Your task to perform on an android device: choose inbox layout in the gmail app Image 0: 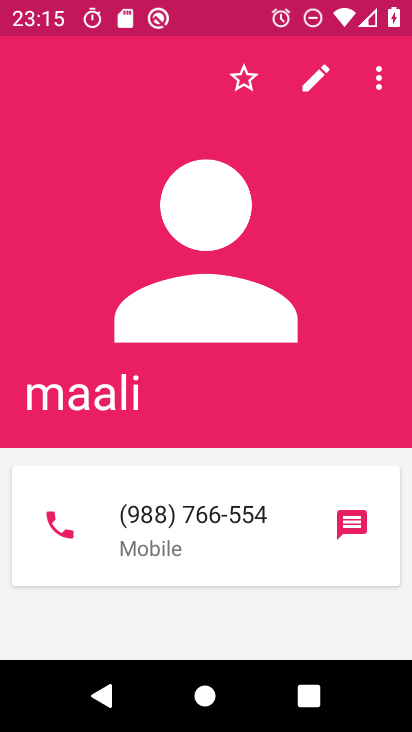
Step 0: press home button
Your task to perform on an android device: choose inbox layout in the gmail app Image 1: 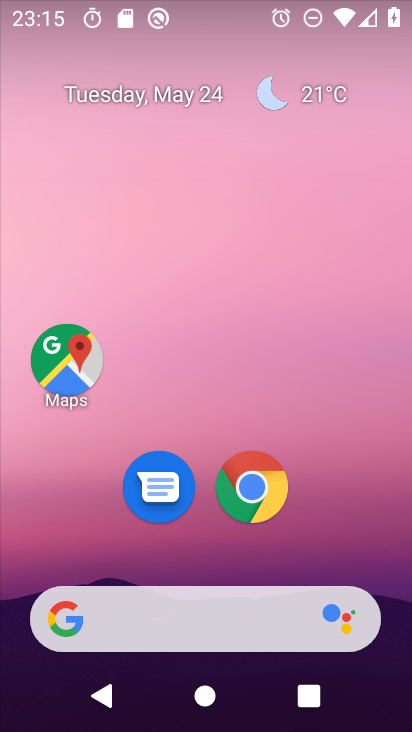
Step 1: drag from (351, 549) to (331, 12)
Your task to perform on an android device: choose inbox layout in the gmail app Image 2: 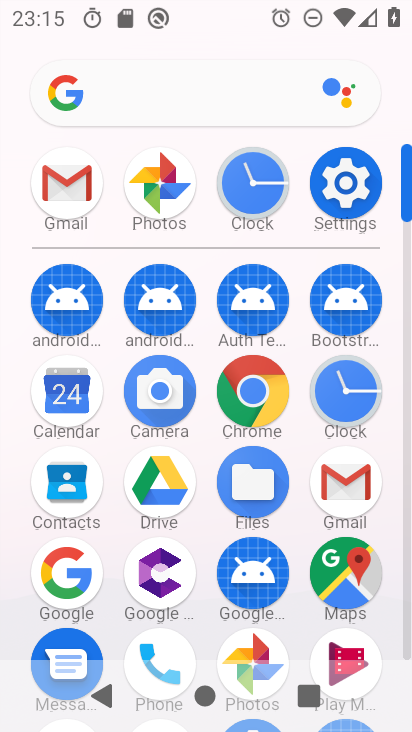
Step 2: click (61, 189)
Your task to perform on an android device: choose inbox layout in the gmail app Image 3: 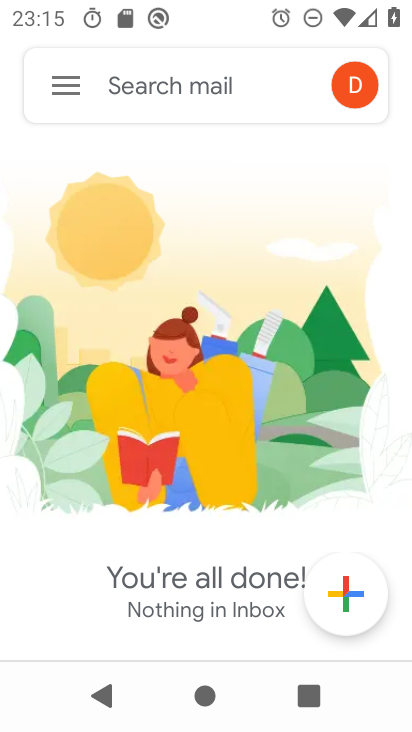
Step 3: click (71, 89)
Your task to perform on an android device: choose inbox layout in the gmail app Image 4: 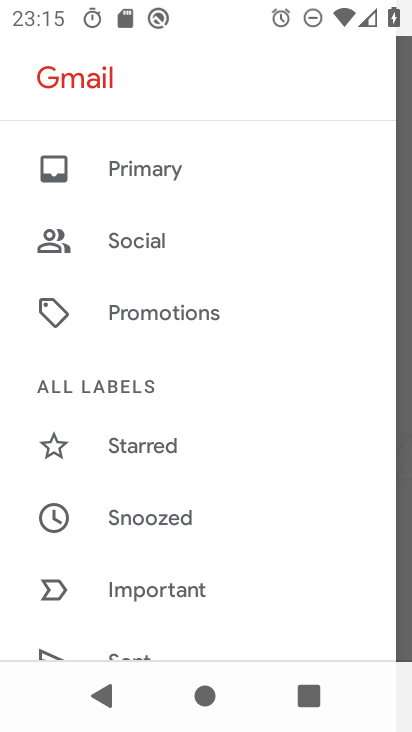
Step 4: drag from (232, 556) to (219, 191)
Your task to perform on an android device: choose inbox layout in the gmail app Image 5: 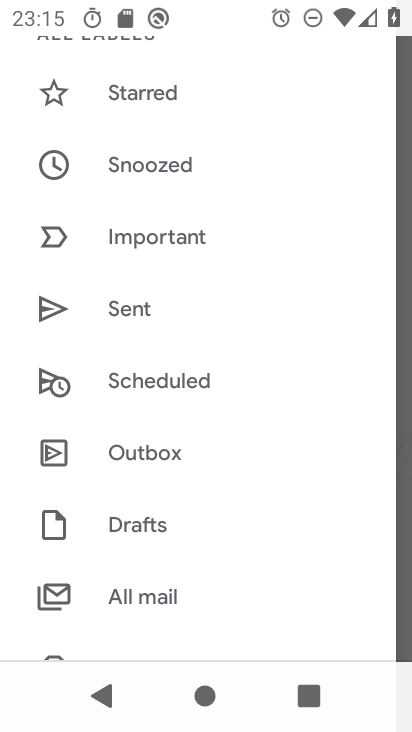
Step 5: drag from (260, 559) to (217, 159)
Your task to perform on an android device: choose inbox layout in the gmail app Image 6: 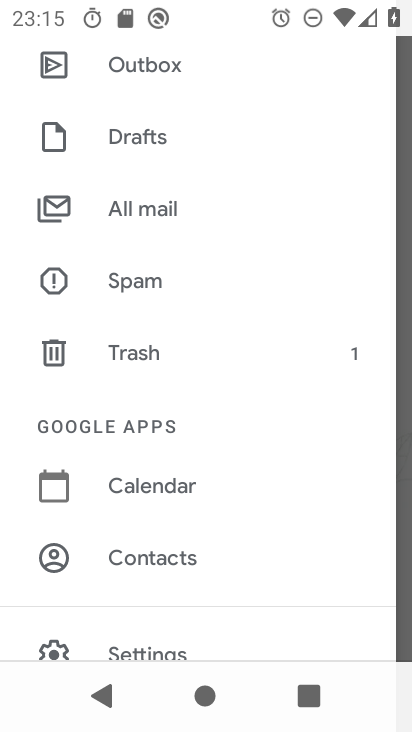
Step 6: drag from (141, 561) to (154, 164)
Your task to perform on an android device: choose inbox layout in the gmail app Image 7: 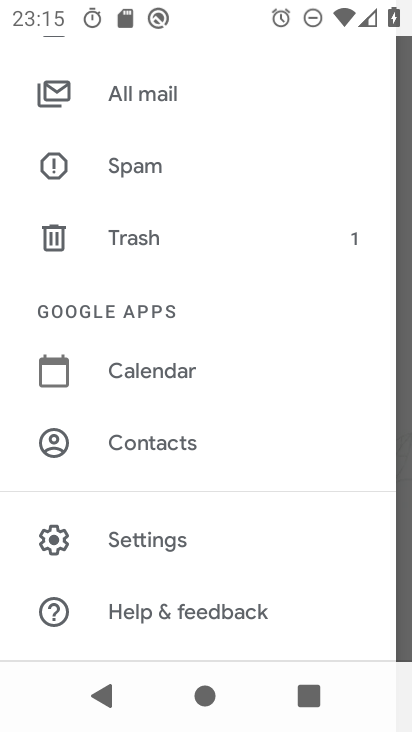
Step 7: click (132, 532)
Your task to perform on an android device: choose inbox layout in the gmail app Image 8: 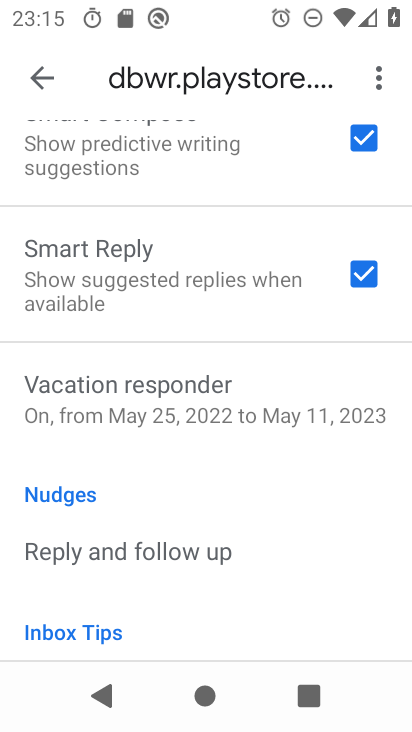
Step 8: drag from (153, 203) to (163, 724)
Your task to perform on an android device: choose inbox layout in the gmail app Image 9: 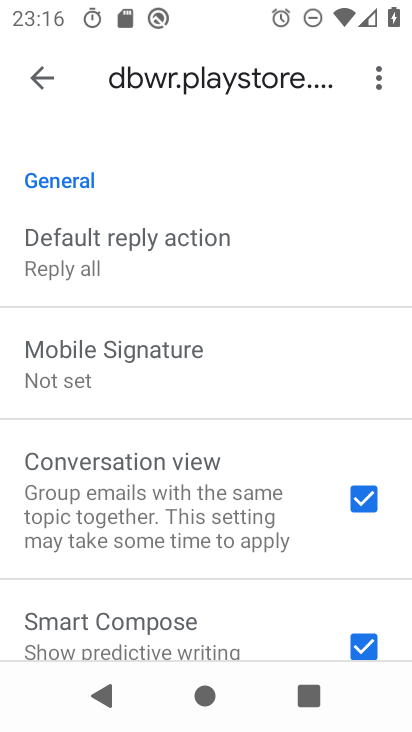
Step 9: drag from (131, 248) to (119, 731)
Your task to perform on an android device: choose inbox layout in the gmail app Image 10: 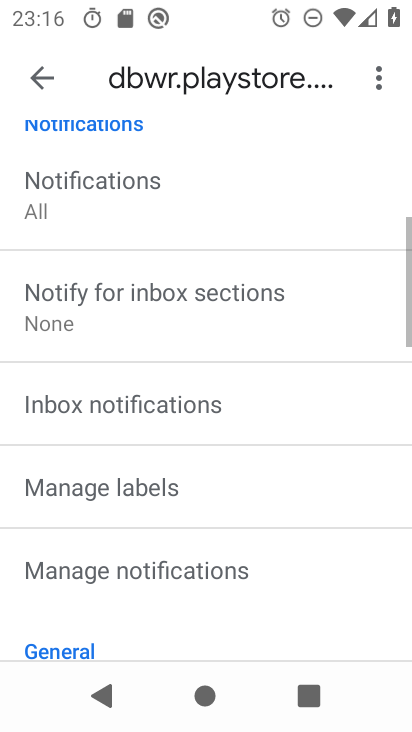
Step 10: drag from (123, 315) to (145, 546)
Your task to perform on an android device: choose inbox layout in the gmail app Image 11: 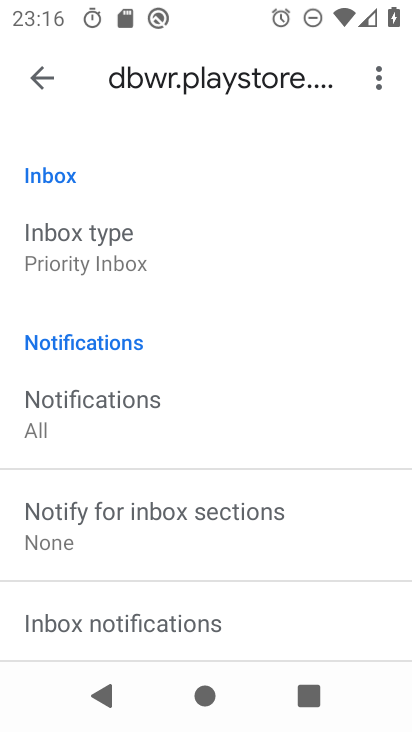
Step 11: click (62, 256)
Your task to perform on an android device: choose inbox layout in the gmail app Image 12: 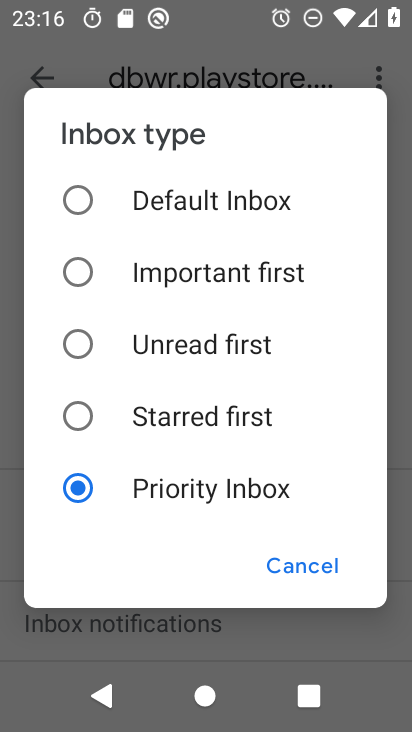
Step 12: click (92, 348)
Your task to perform on an android device: choose inbox layout in the gmail app Image 13: 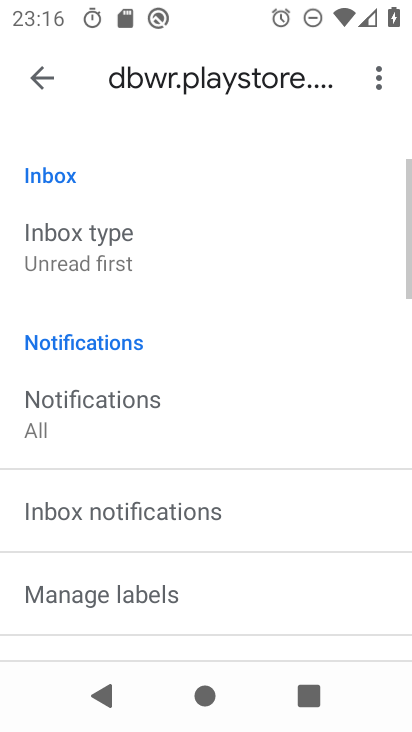
Step 13: task complete